Your task to perform on an android device: set an alarm Image 0: 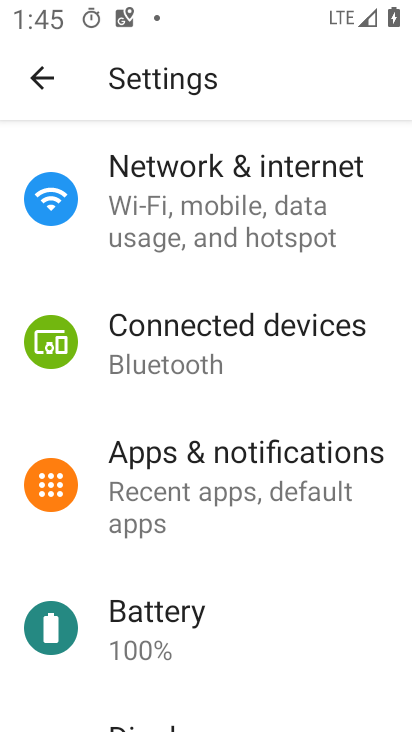
Step 0: press home button
Your task to perform on an android device: set an alarm Image 1: 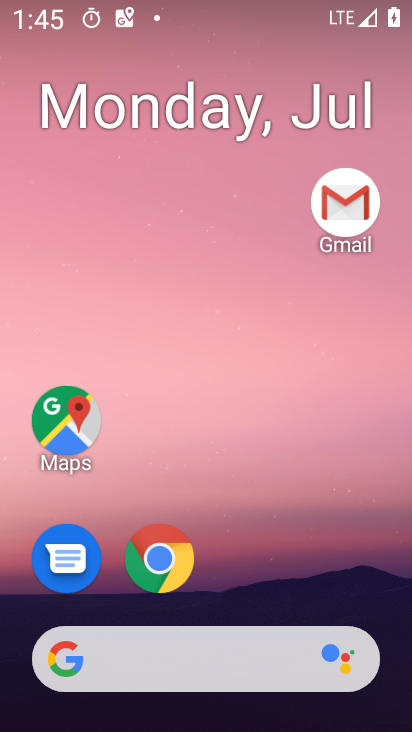
Step 1: drag from (299, 489) to (344, 192)
Your task to perform on an android device: set an alarm Image 2: 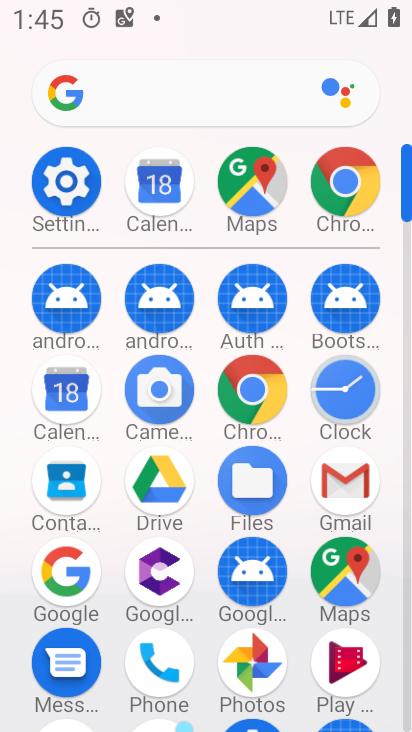
Step 2: click (355, 391)
Your task to perform on an android device: set an alarm Image 3: 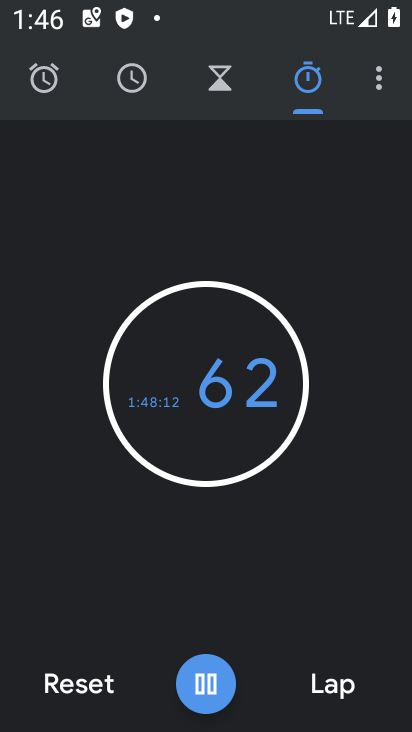
Step 3: click (48, 85)
Your task to perform on an android device: set an alarm Image 4: 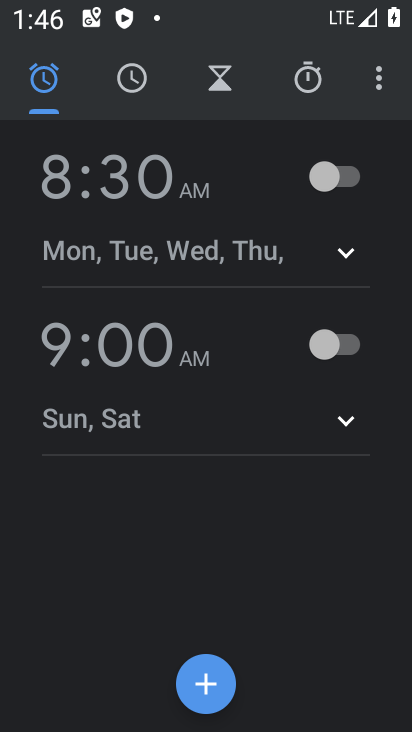
Step 4: click (211, 678)
Your task to perform on an android device: set an alarm Image 5: 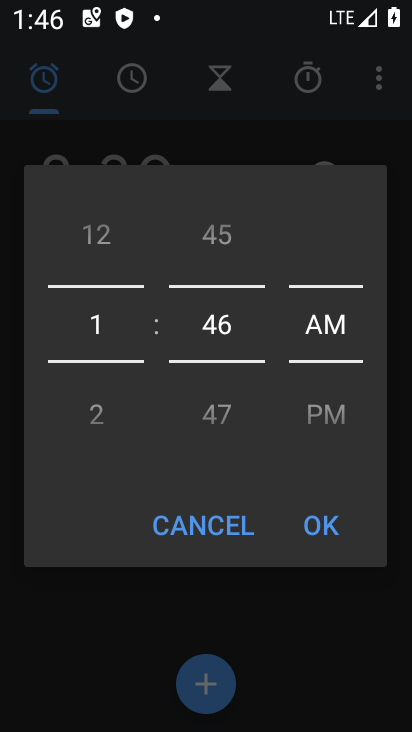
Step 5: click (322, 528)
Your task to perform on an android device: set an alarm Image 6: 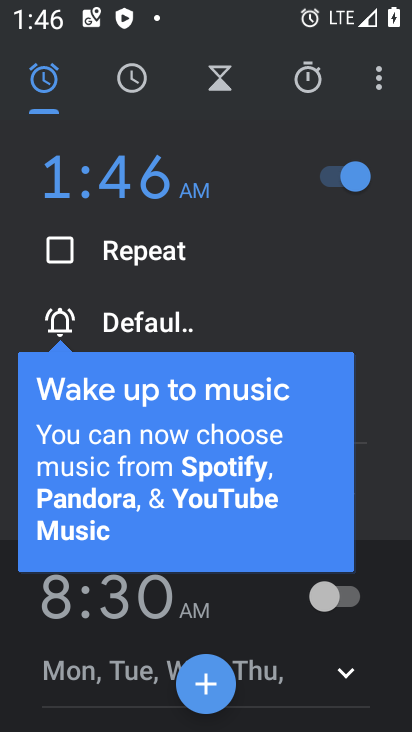
Step 6: task complete